Your task to perform on an android device: open the mobile data screen to see how much data has been used Image 0: 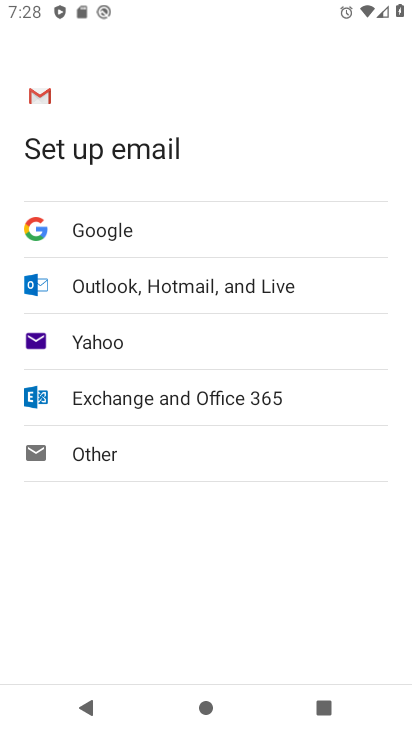
Step 0: press home button
Your task to perform on an android device: open the mobile data screen to see how much data has been used Image 1: 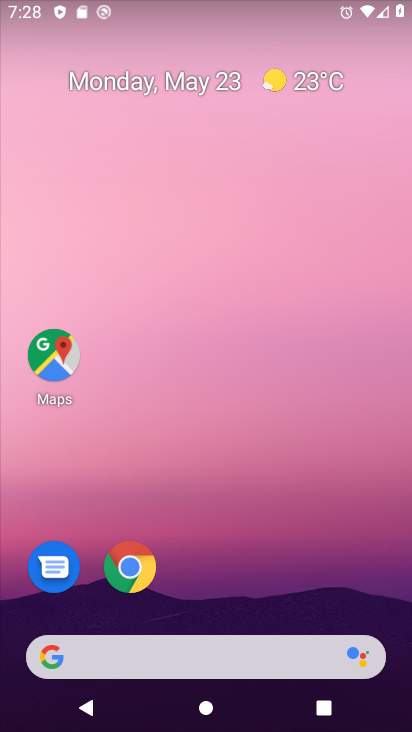
Step 1: drag from (239, 566) to (207, 262)
Your task to perform on an android device: open the mobile data screen to see how much data has been used Image 2: 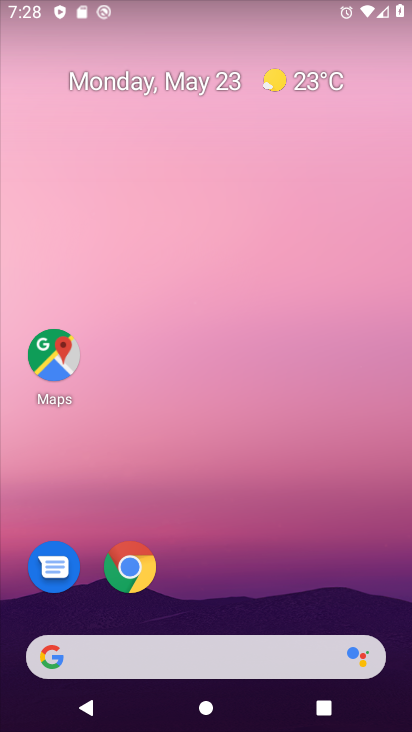
Step 2: drag from (221, 682) to (257, 298)
Your task to perform on an android device: open the mobile data screen to see how much data has been used Image 3: 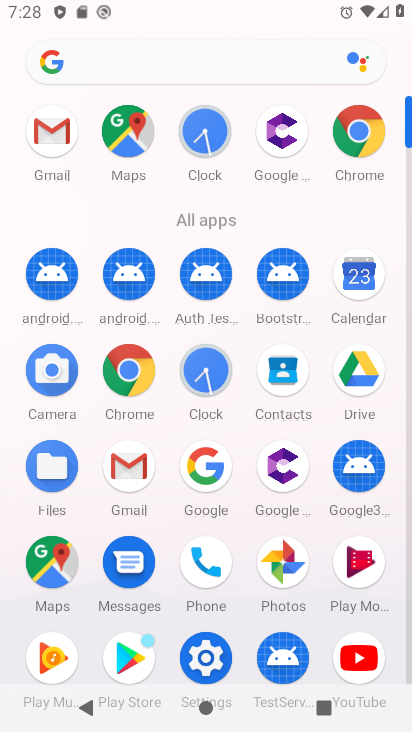
Step 3: click (199, 658)
Your task to perform on an android device: open the mobile data screen to see how much data has been used Image 4: 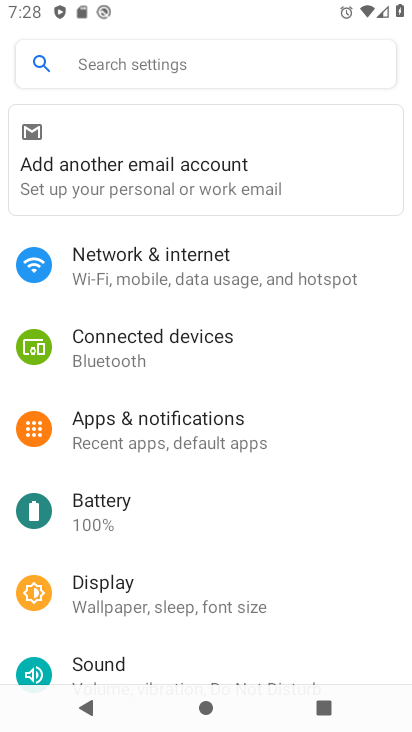
Step 4: click (130, 296)
Your task to perform on an android device: open the mobile data screen to see how much data has been used Image 5: 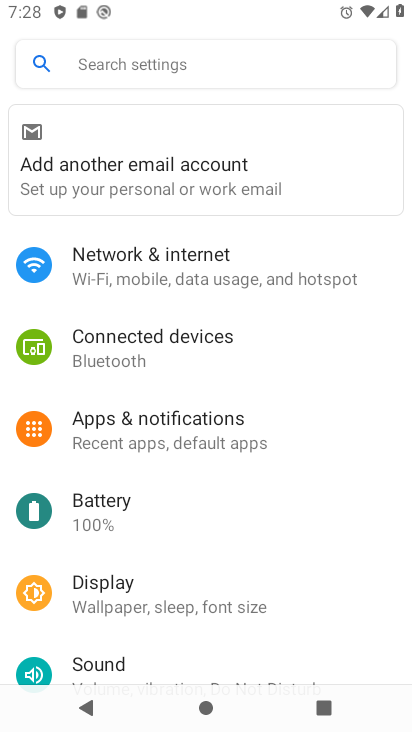
Step 5: click (115, 263)
Your task to perform on an android device: open the mobile data screen to see how much data has been used Image 6: 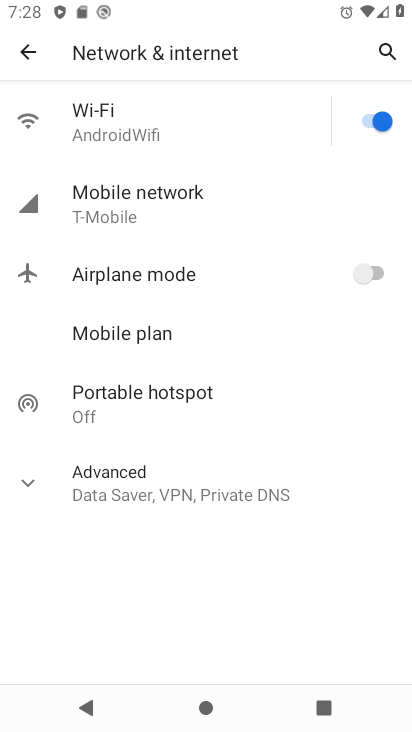
Step 6: click (159, 208)
Your task to perform on an android device: open the mobile data screen to see how much data has been used Image 7: 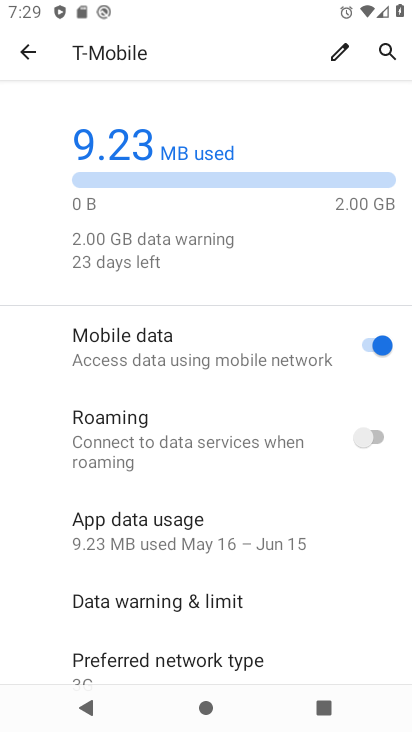
Step 7: task complete